Your task to perform on an android device: check android version Image 0: 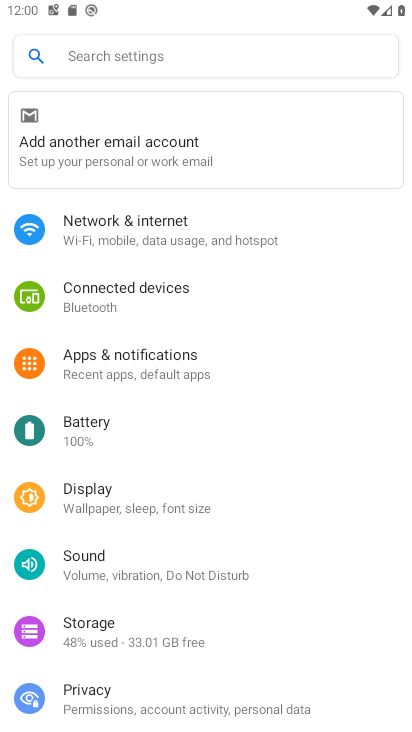
Step 0: press home button
Your task to perform on an android device: check android version Image 1: 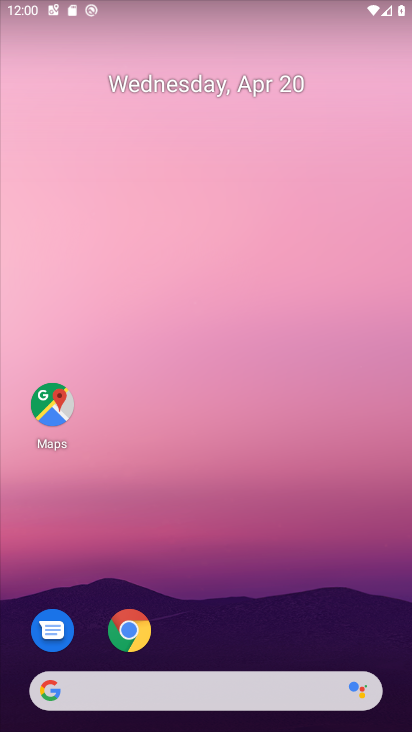
Step 1: drag from (247, 619) to (245, 81)
Your task to perform on an android device: check android version Image 2: 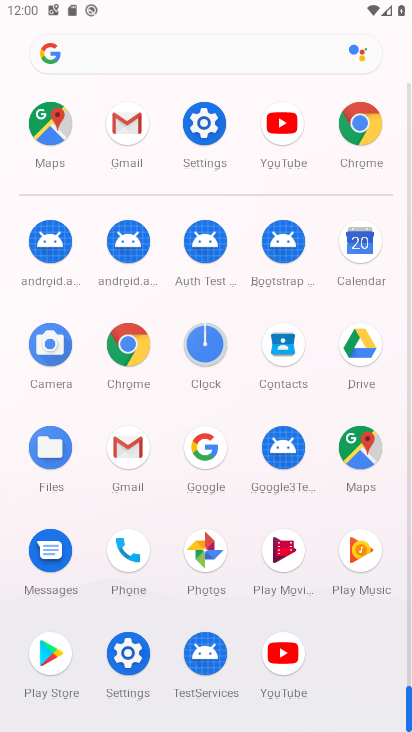
Step 2: click (128, 642)
Your task to perform on an android device: check android version Image 3: 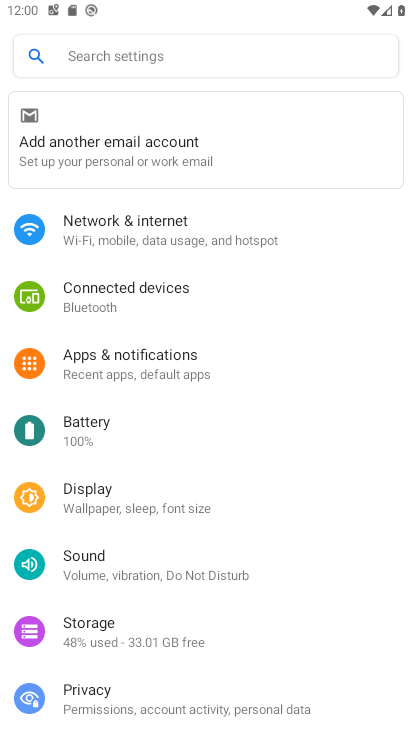
Step 3: drag from (302, 657) to (295, 268)
Your task to perform on an android device: check android version Image 4: 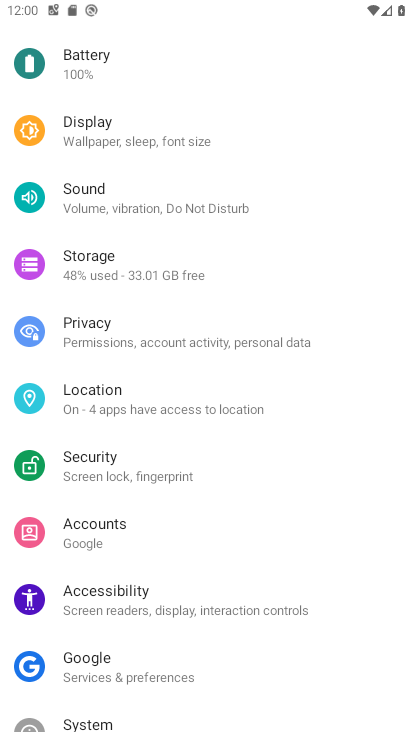
Step 4: drag from (325, 558) to (354, 281)
Your task to perform on an android device: check android version Image 5: 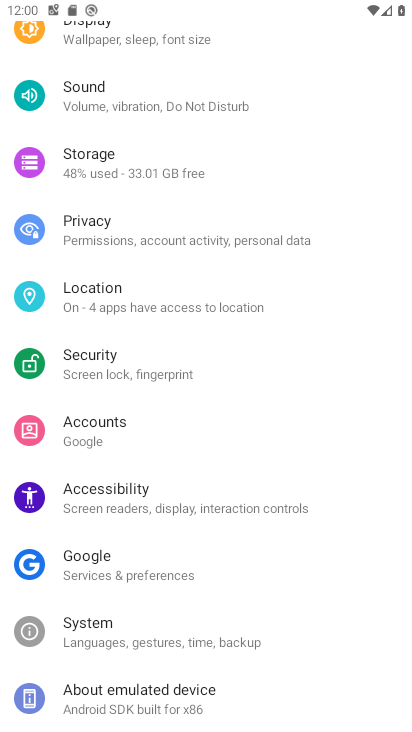
Step 5: click (161, 688)
Your task to perform on an android device: check android version Image 6: 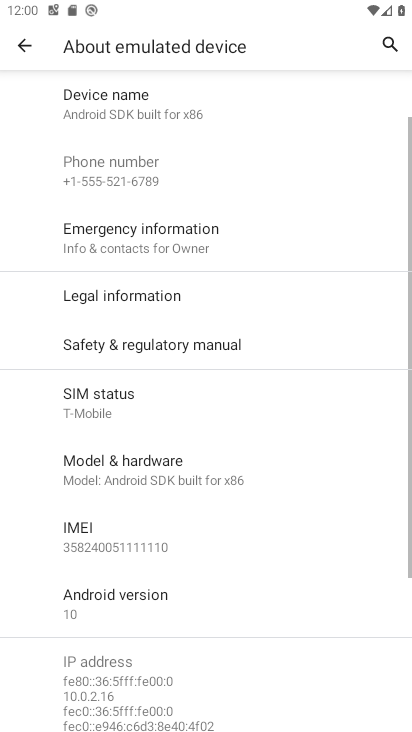
Step 6: drag from (276, 251) to (257, 464)
Your task to perform on an android device: check android version Image 7: 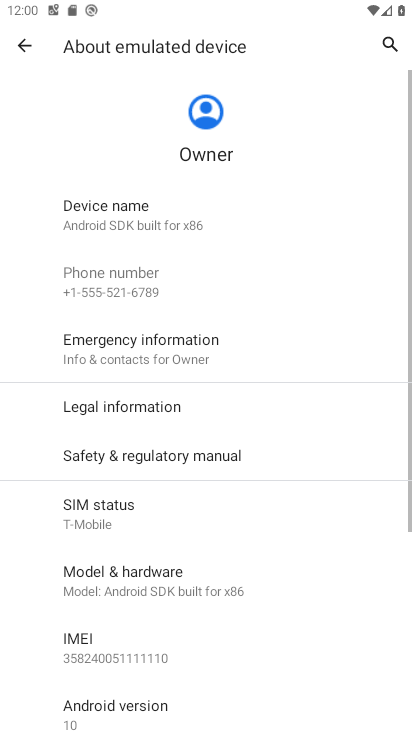
Step 7: drag from (233, 666) to (219, 419)
Your task to perform on an android device: check android version Image 8: 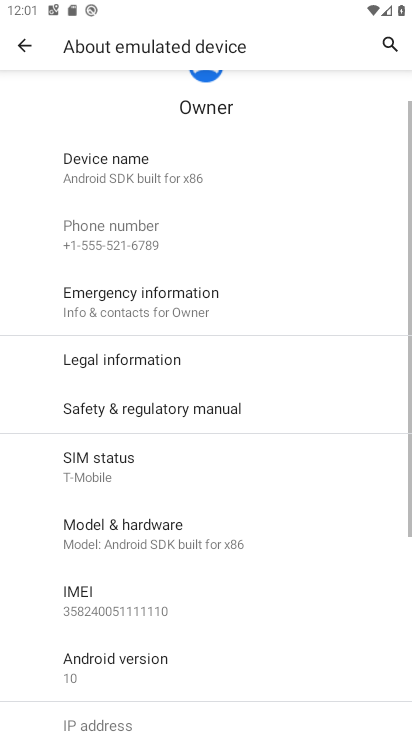
Step 8: click (99, 663)
Your task to perform on an android device: check android version Image 9: 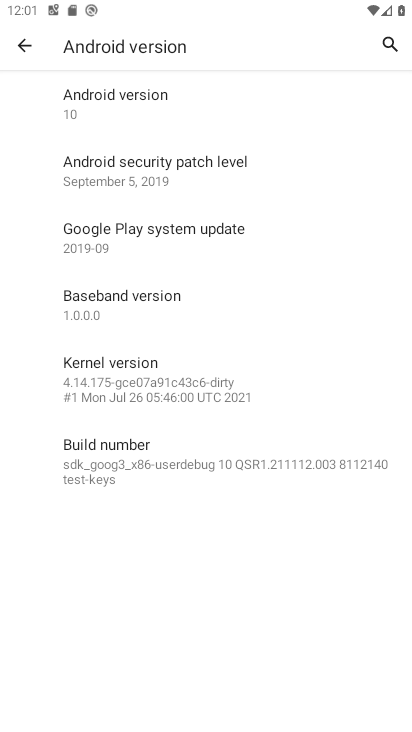
Step 9: task complete